Your task to perform on an android device: install app "Google Play Games" Image 0: 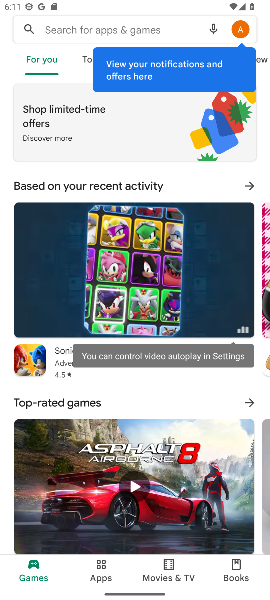
Step 0: click (107, 28)
Your task to perform on an android device: install app "Google Play Games" Image 1: 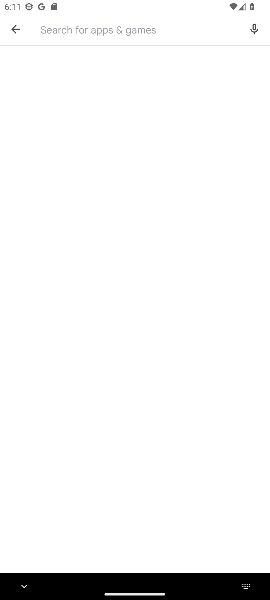
Step 1: type "google play games"
Your task to perform on an android device: install app "Google Play Games" Image 2: 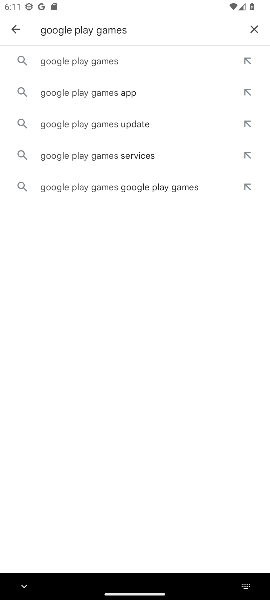
Step 2: click (113, 58)
Your task to perform on an android device: install app "Google Play Games" Image 3: 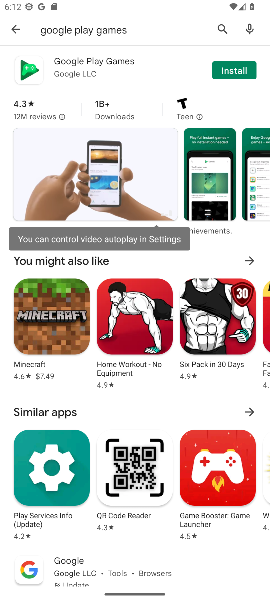
Step 3: click (234, 76)
Your task to perform on an android device: install app "Google Play Games" Image 4: 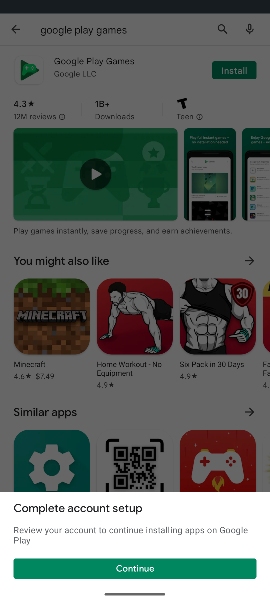
Step 4: click (96, 573)
Your task to perform on an android device: install app "Google Play Games" Image 5: 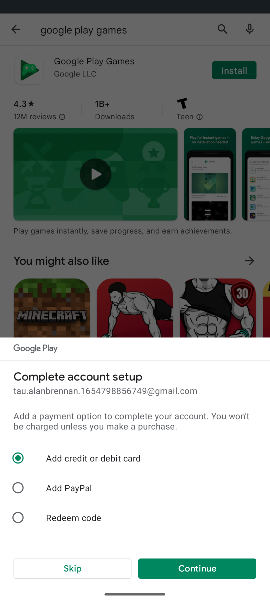
Step 5: click (86, 562)
Your task to perform on an android device: install app "Google Play Games" Image 6: 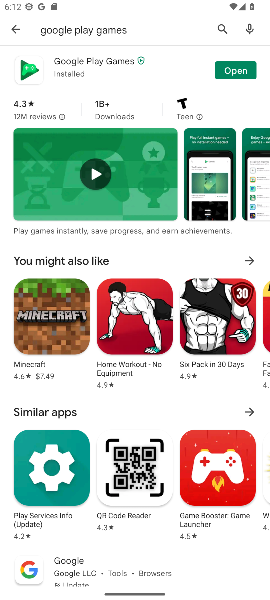
Step 6: task complete